Your task to perform on an android device: Go to Yahoo.com Image 0: 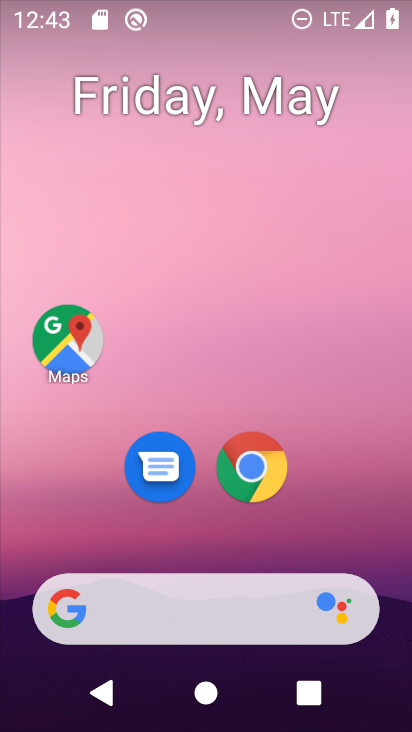
Step 0: drag from (263, 620) to (327, 48)
Your task to perform on an android device: Go to Yahoo.com Image 1: 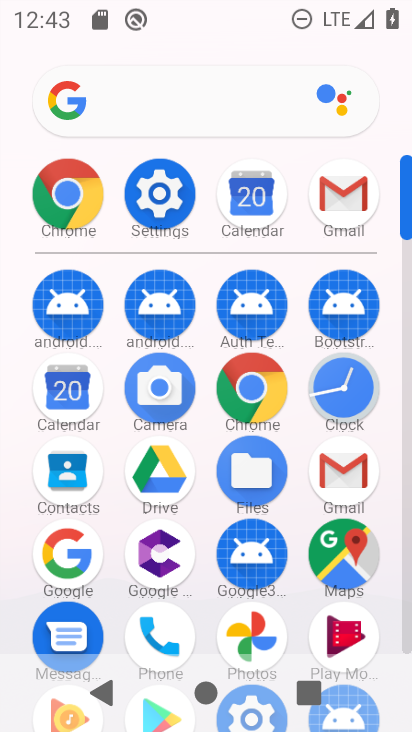
Step 1: click (256, 405)
Your task to perform on an android device: Go to Yahoo.com Image 2: 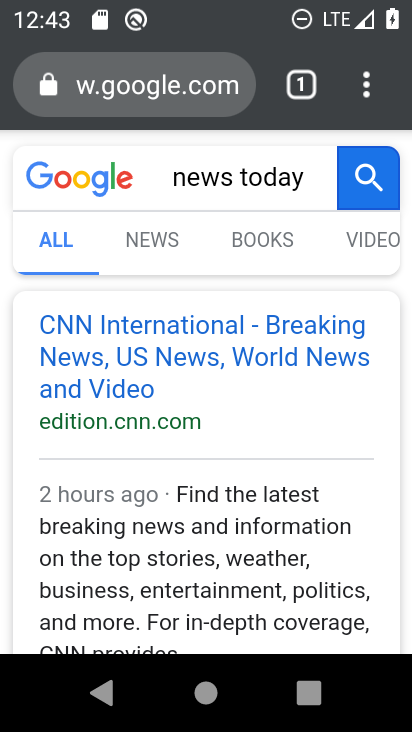
Step 2: click (202, 86)
Your task to perform on an android device: Go to Yahoo.com Image 3: 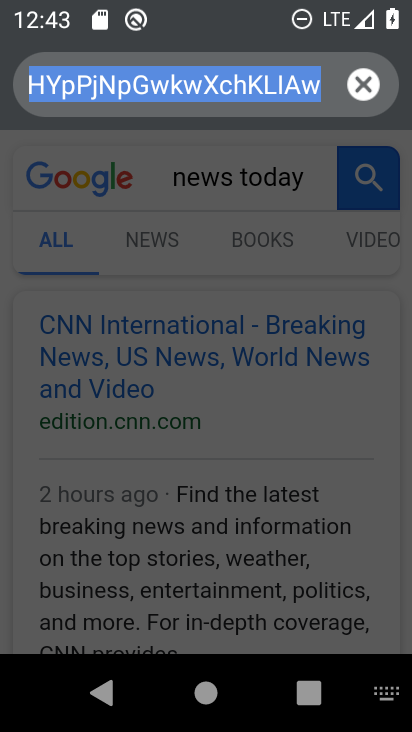
Step 3: press back button
Your task to perform on an android device: Go to Yahoo.com Image 4: 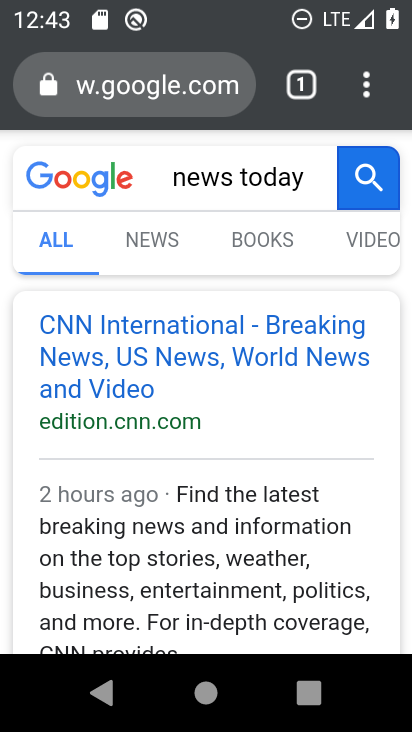
Step 4: click (186, 83)
Your task to perform on an android device: Go to Yahoo.com Image 5: 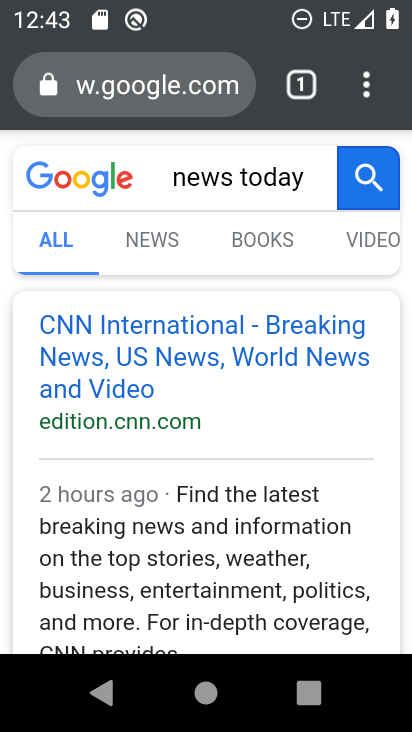
Step 5: click (186, 83)
Your task to perform on an android device: Go to Yahoo.com Image 6: 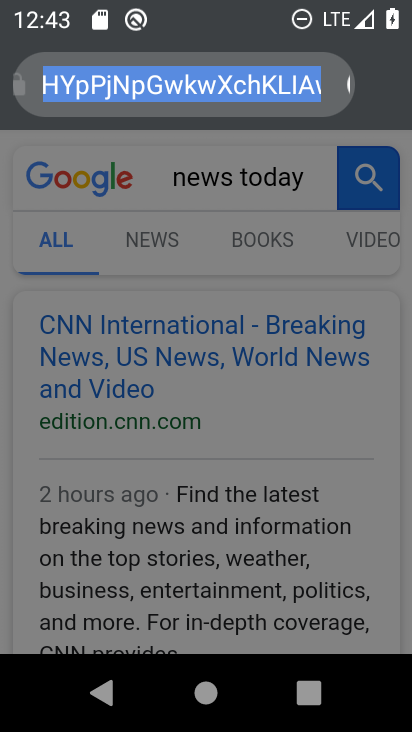
Step 6: click (186, 83)
Your task to perform on an android device: Go to Yahoo.com Image 7: 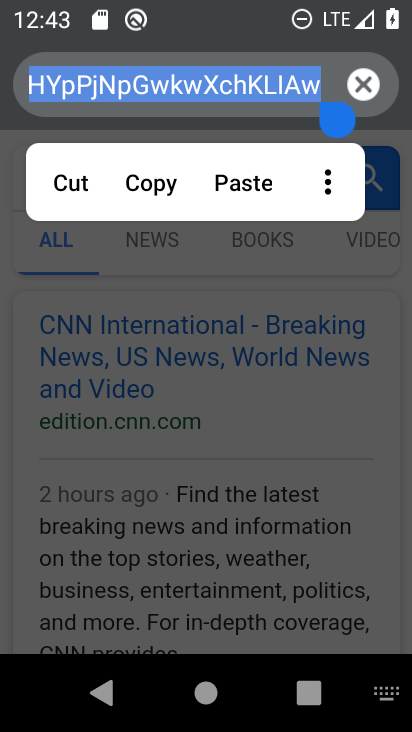
Step 7: click (353, 91)
Your task to perform on an android device: Go to Yahoo.com Image 8: 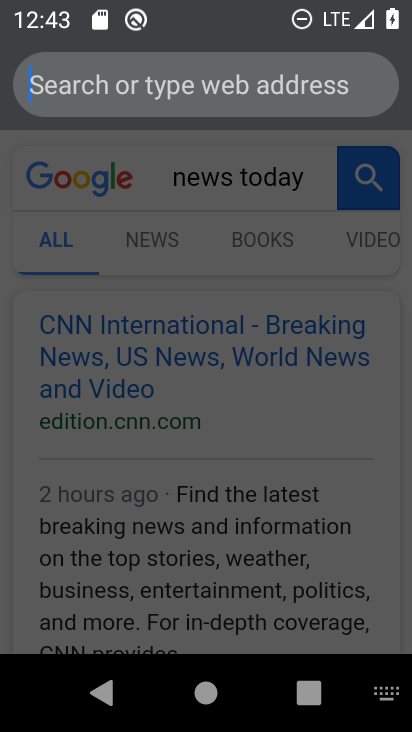
Step 8: type "yahoo.com"
Your task to perform on an android device: Go to Yahoo.com Image 9: 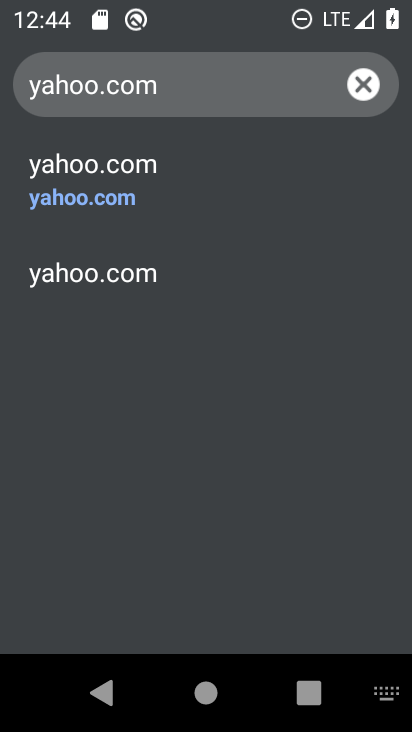
Step 9: click (131, 186)
Your task to perform on an android device: Go to Yahoo.com Image 10: 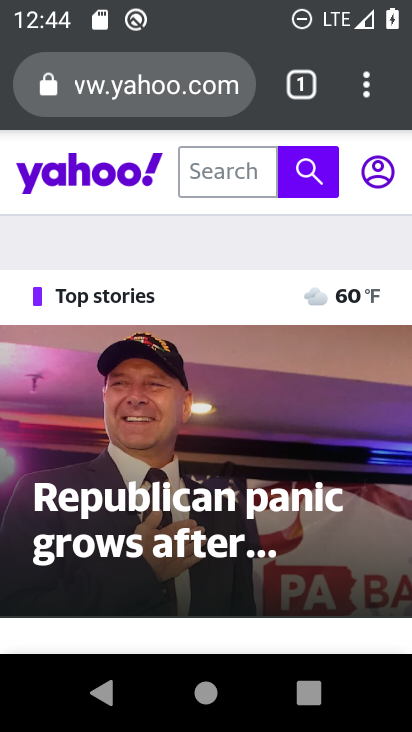
Step 10: task complete